Your task to perform on an android device: toggle data saver in the chrome app Image 0: 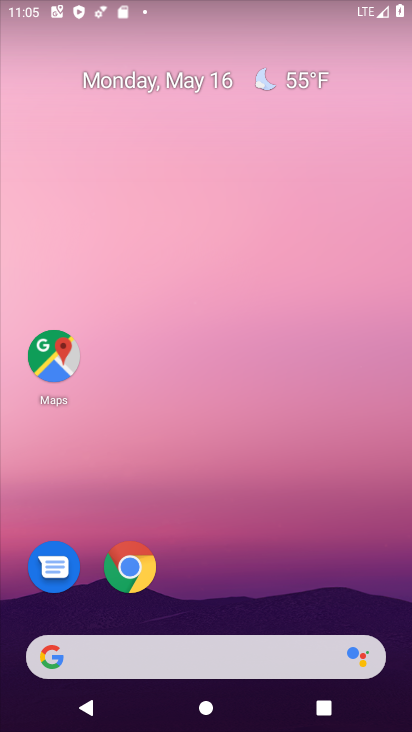
Step 0: click (134, 596)
Your task to perform on an android device: toggle data saver in the chrome app Image 1: 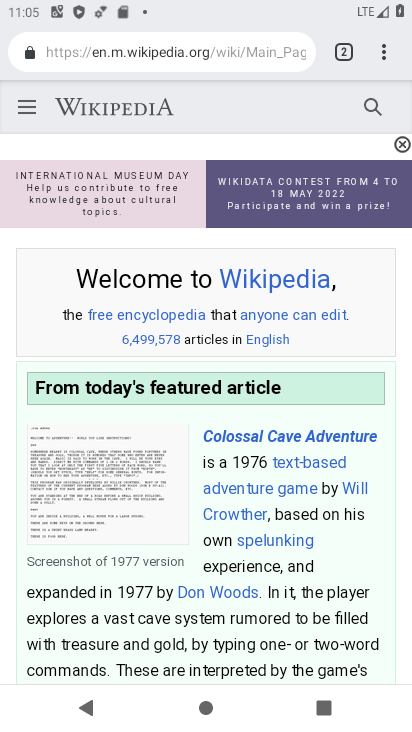
Step 1: drag from (386, 44) to (258, 614)
Your task to perform on an android device: toggle data saver in the chrome app Image 2: 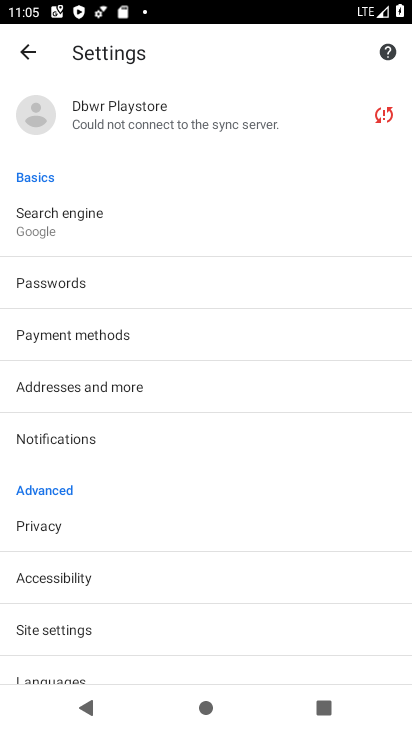
Step 2: drag from (193, 627) to (260, 314)
Your task to perform on an android device: toggle data saver in the chrome app Image 3: 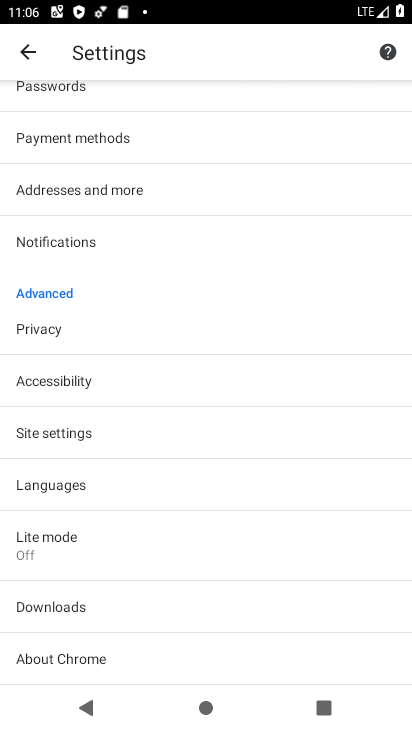
Step 3: drag from (201, 589) to (244, 371)
Your task to perform on an android device: toggle data saver in the chrome app Image 4: 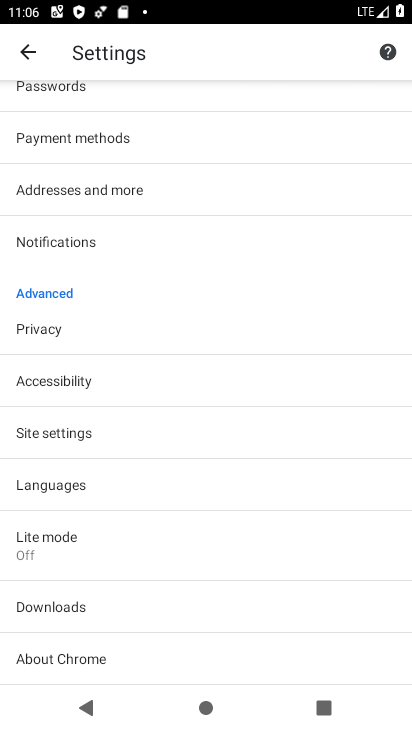
Step 4: click (104, 549)
Your task to perform on an android device: toggle data saver in the chrome app Image 5: 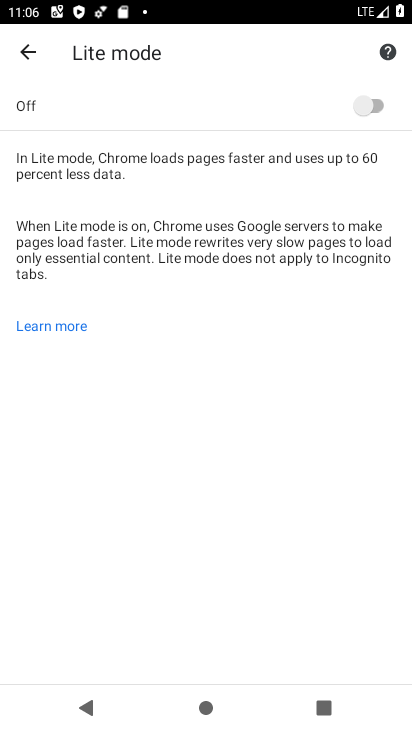
Step 5: click (392, 102)
Your task to perform on an android device: toggle data saver in the chrome app Image 6: 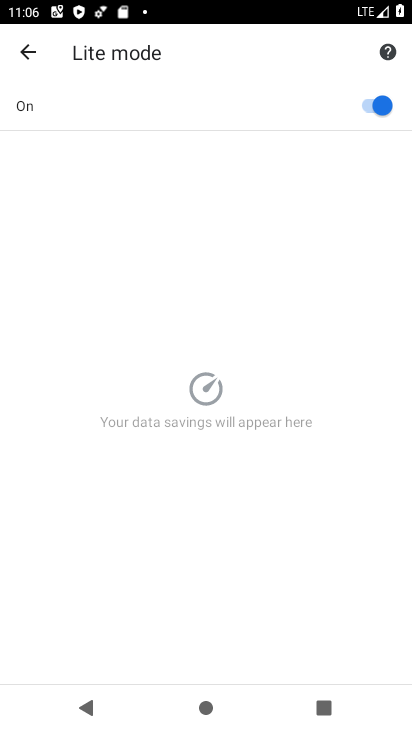
Step 6: task complete